Your task to perform on an android device: Open wifi settings Image 0: 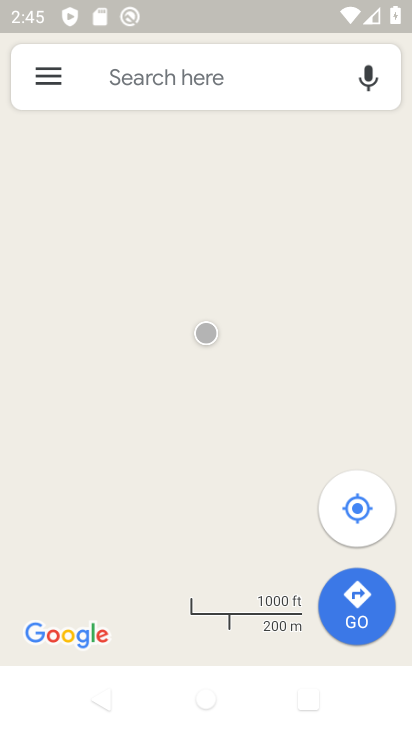
Step 0: press home button
Your task to perform on an android device: Open wifi settings Image 1: 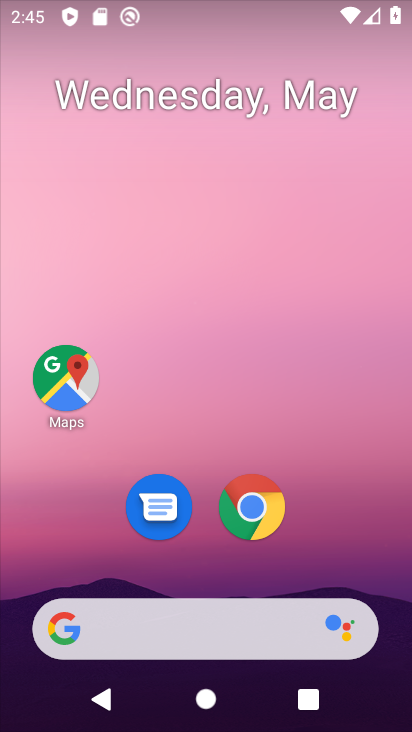
Step 1: drag from (222, 570) to (307, 106)
Your task to perform on an android device: Open wifi settings Image 2: 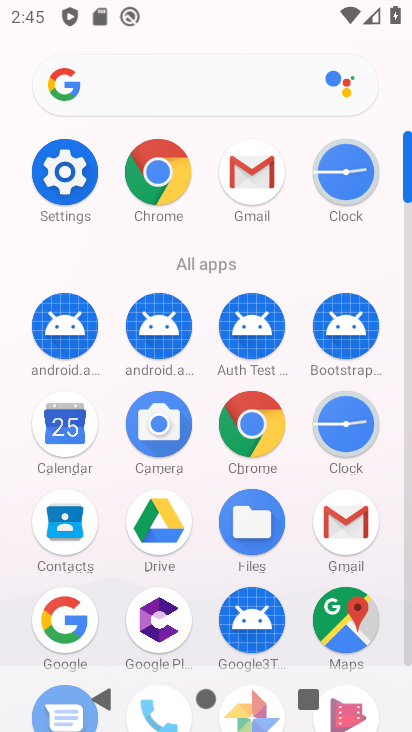
Step 2: click (67, 171)
Your task to perform on an android device: Open wifi settings Image 3: 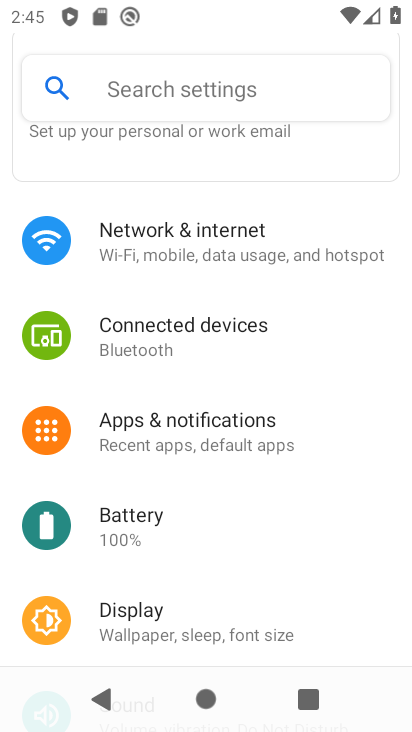
Step 3: click (175, 251)
Your task to perform on an android device: Open wifi settings Image 4: 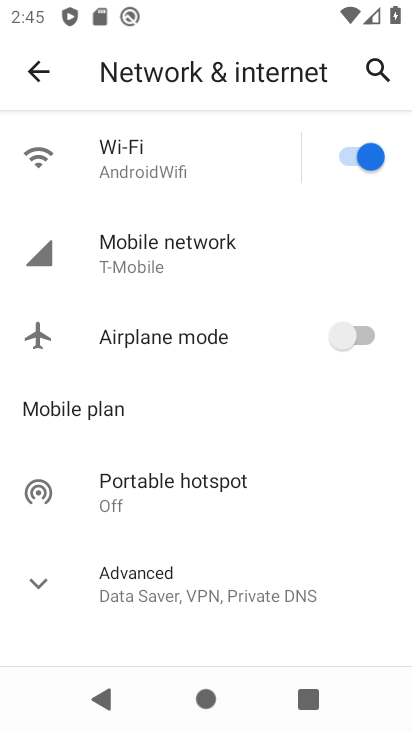
Step 4: click (151, 165)
Your task to perform on an android device: Open wifi settings Image 5: 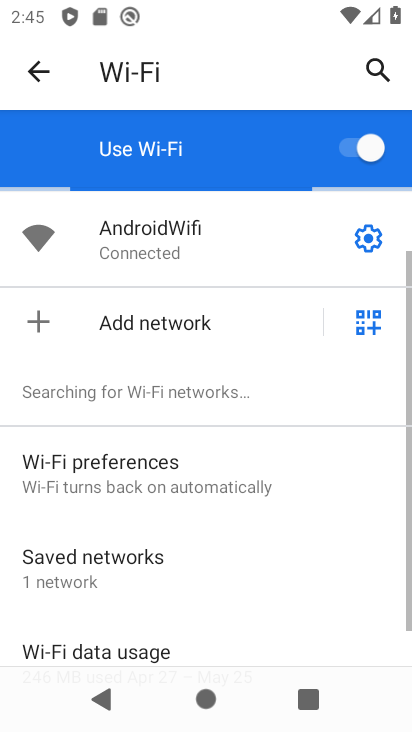
Step 5: click (189, 250)
Your task to perform on an android device: Open wifi settings Image 6: 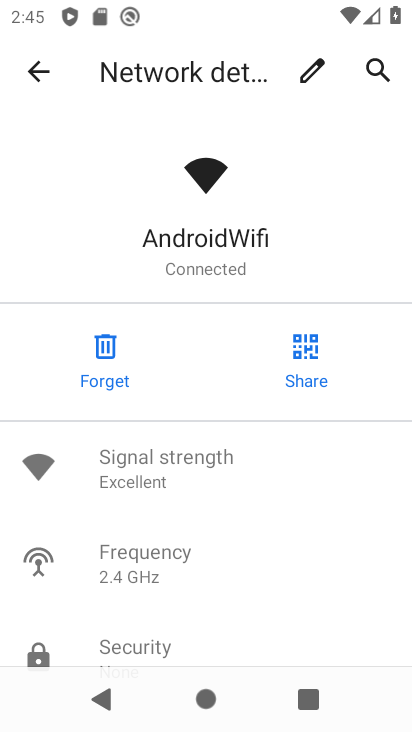
Step 6: task complete